Your task to perform on an android device: find which apps use the phone's location Image 0: 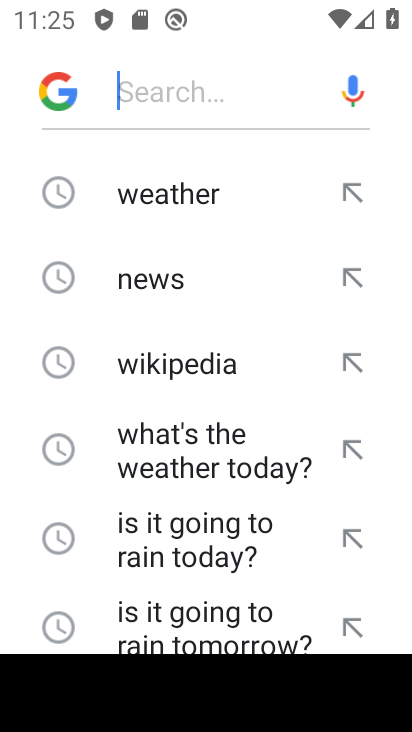
Step 0: press home button
Your task to perform on an android device: find which apps use the phone's location Image 1: 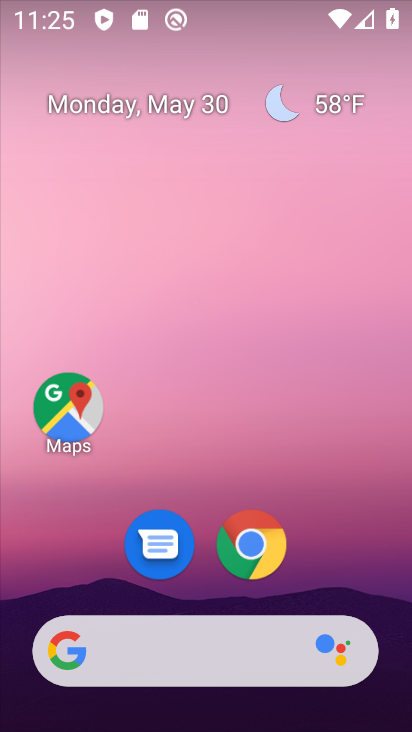
Step 1: drag from (352, 554) to (374, 250)
Your task to perform on an android device: find which apps use the phone's location Image 2: 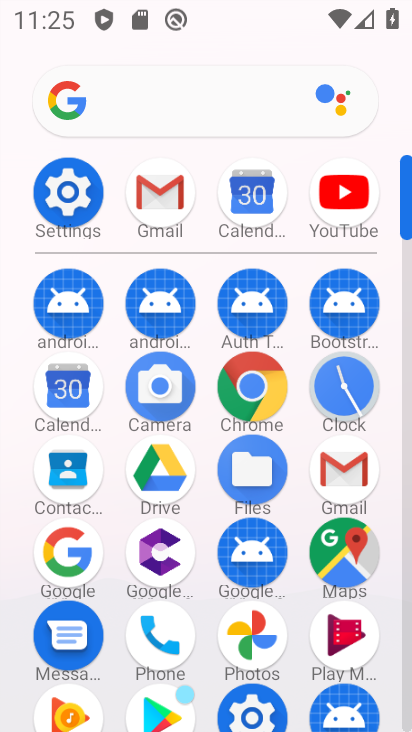
Step 2: click (65, 202)
Your task to perform on an android device: find which apps use the phone's location Image 3: 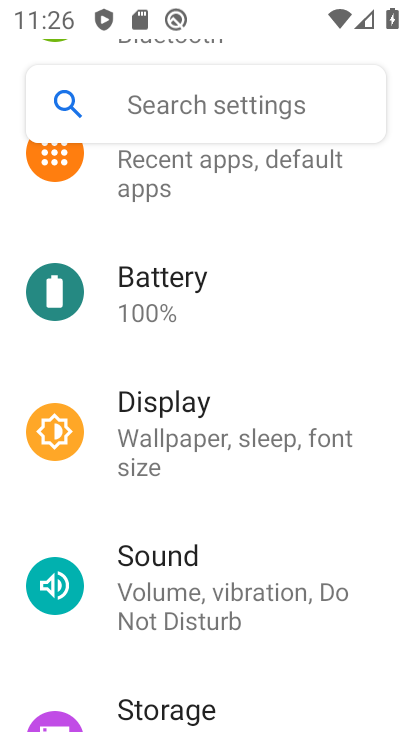
Step 3: task complete